Your task to perform on an android device: What is the recent news? Image 0: 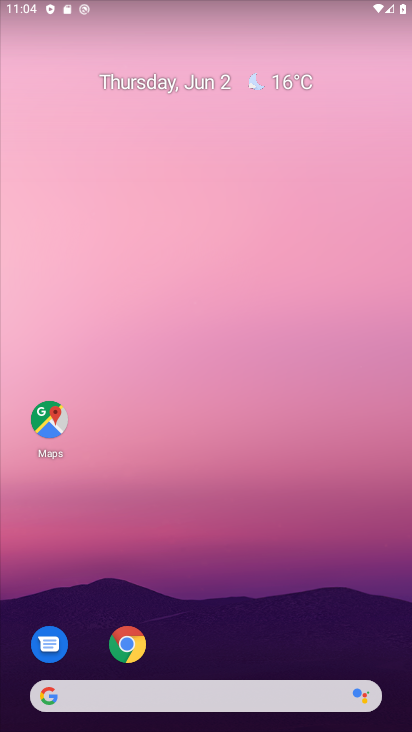
Step 0: click (125, 641)
Your task to perform on an android device: What is the recent news? Image 1: 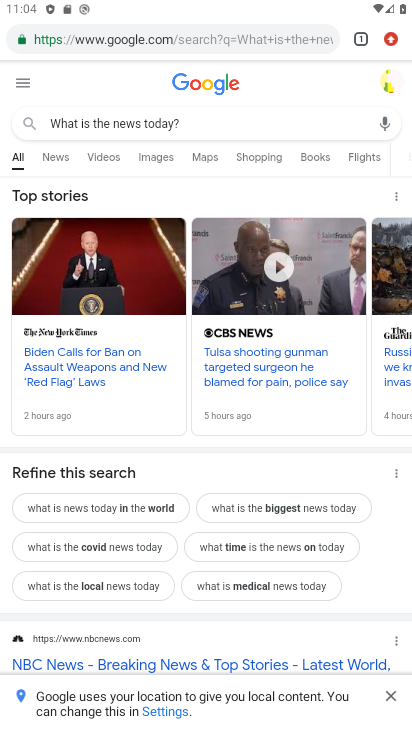
Step 1: click (119, 38)
Your task to perform on an android device: What is the recent news? Image 2: 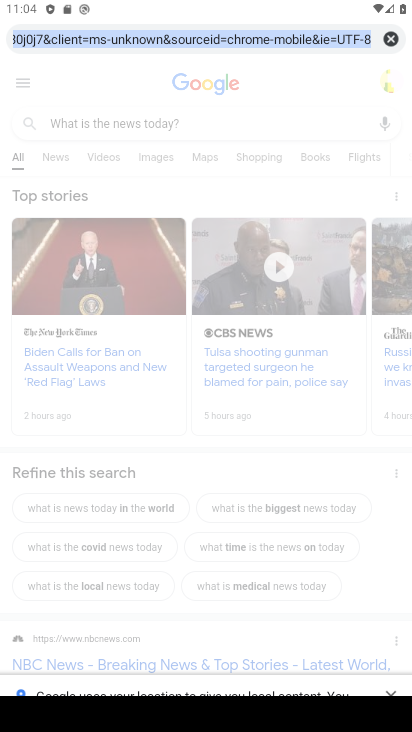
Step 2: type "What is the recent news?"
Your task to perform on an android device: What is the recent news? Image 3: 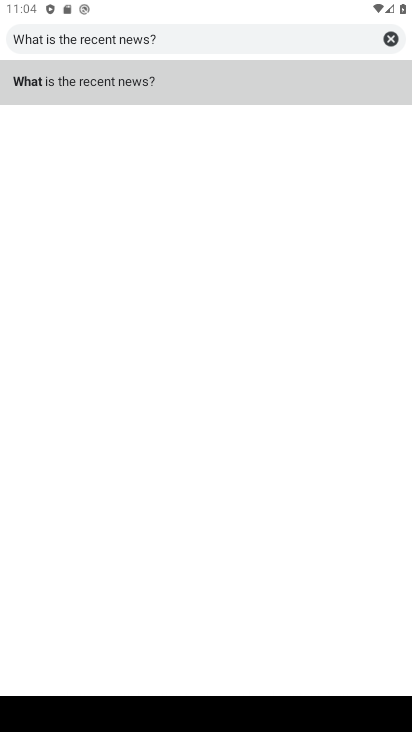
Step 3: click (194, 95)
Your task to perform on an android device: What is the recent news? Image 4: 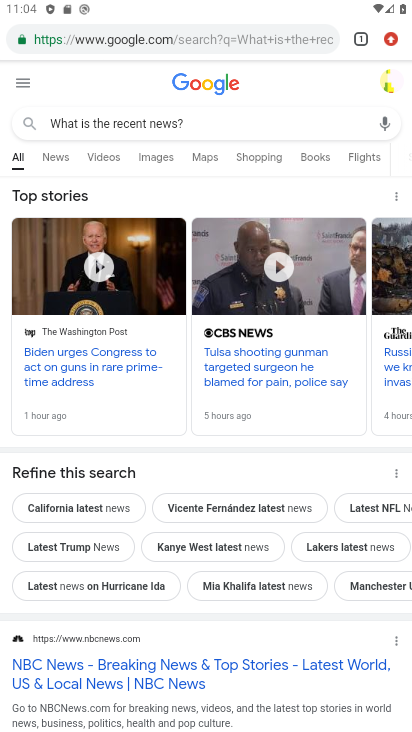
Step 4: task complete